Your task to perform on an android device: Open Google Maps and go to "Timeline" Image 0: 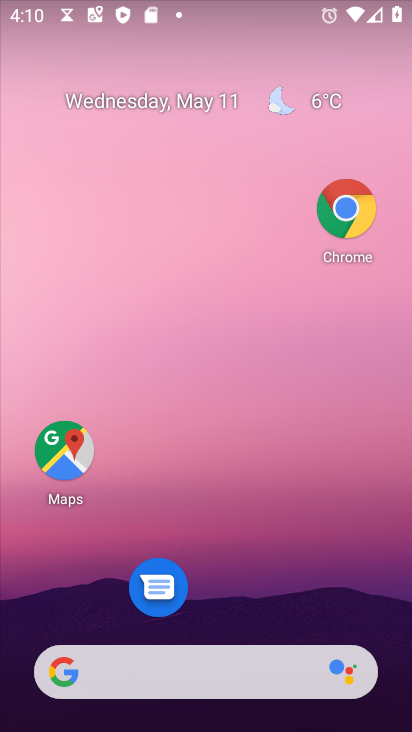
Step 0: click (63, 464)
Your task to perform on an android device: Open Google Maps and go to "Timeline" Image 1: 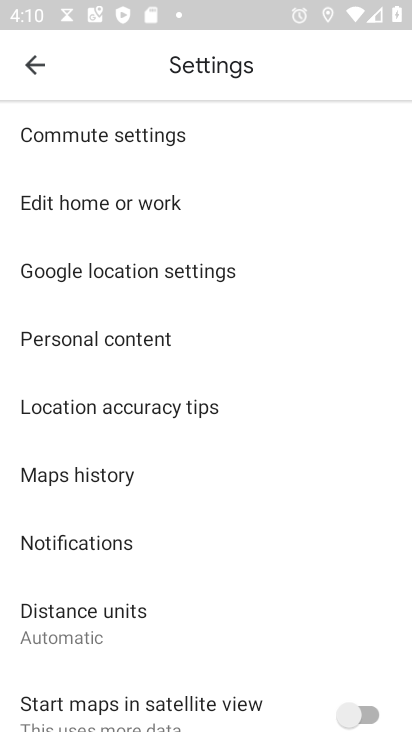
Step 1: click (37, 62)
Your task to perform on an android device: Open Google Maps and go to "Timeline" Image 2: 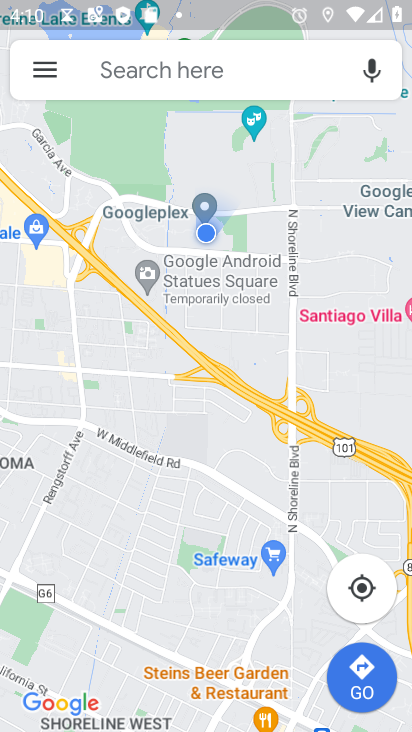
Step 2: click (37, 62)
Your task to perform on an android device: Open Google Maps and go to "Timeline" Image 3: 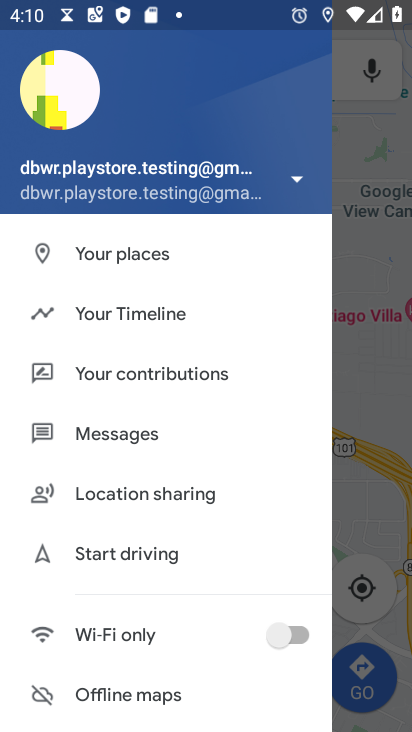
Step 3: click (130, 319)
Your task to perform on an android device: Open Google Maps and go to "Timeline" Image 4: 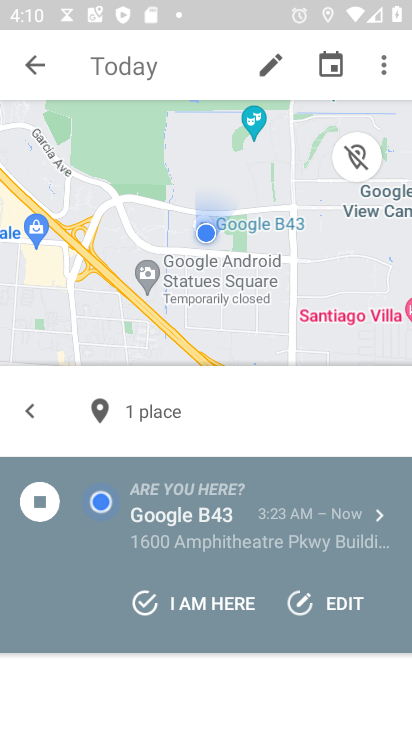
Step 4: task complete